Your task to perform on an android device: toggle data saver in the chrome app Image 0: 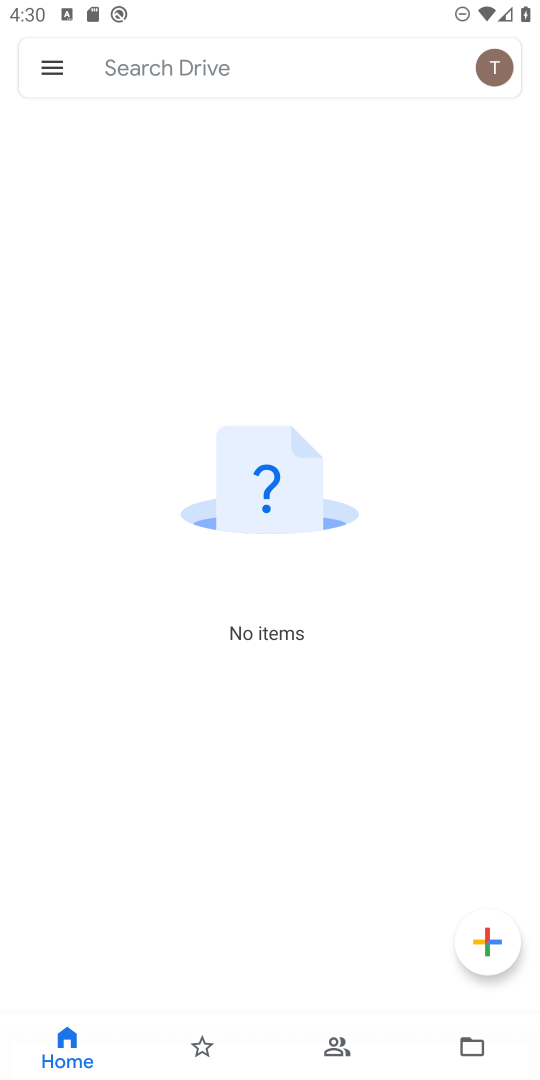
Step 0: press home button
Your task to perform on an android device: toggle data saver in the chrome app Image 1: 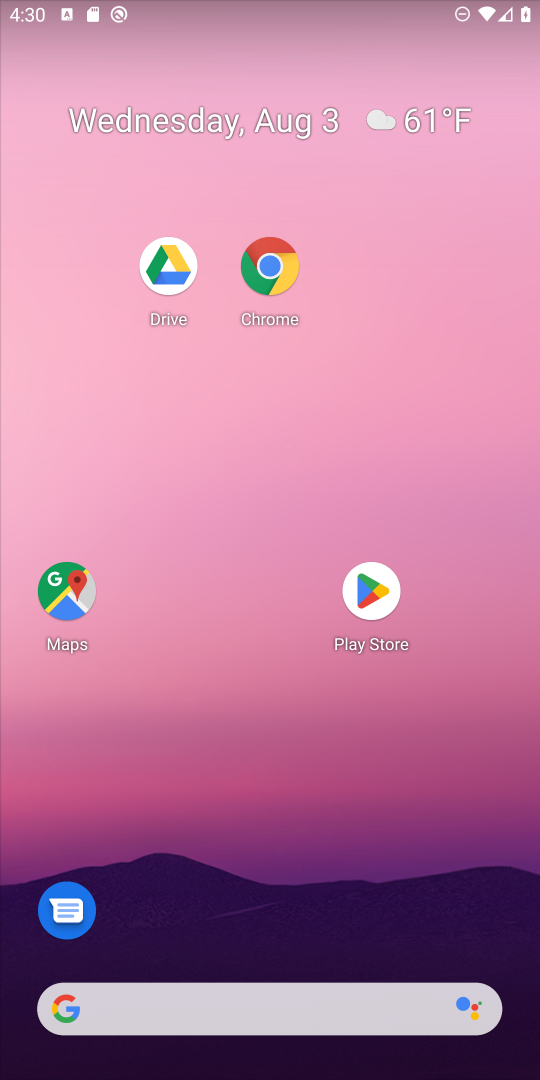
Step 1: drag from (330, 1002) to (382, 48)
Your task to perform on an android device: toggle data saver in the chrome app Image 2: 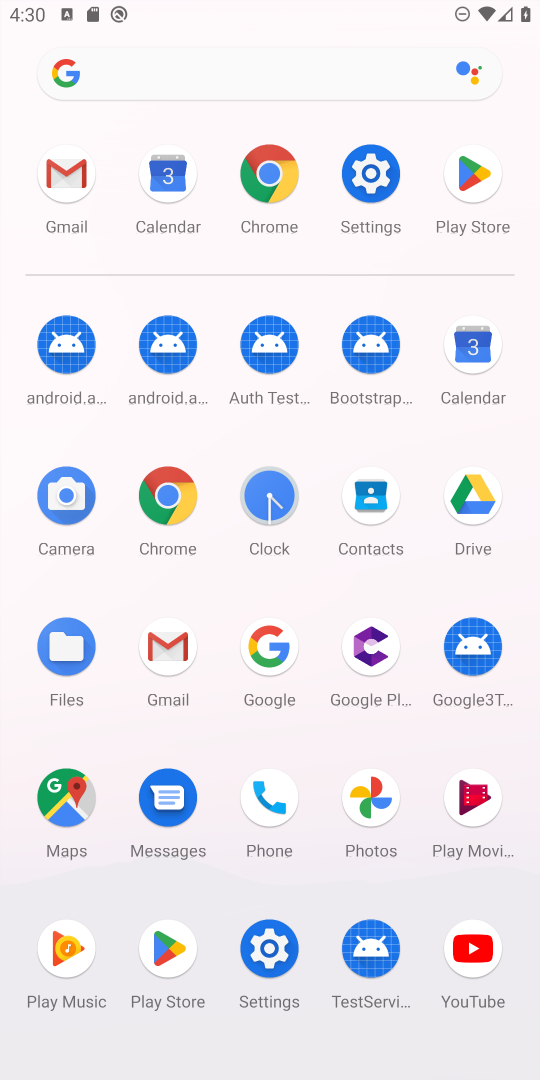
Step 2: click (193, 485)
Your task to perform on an android device: toggle data saver in the chrome app Image 3: 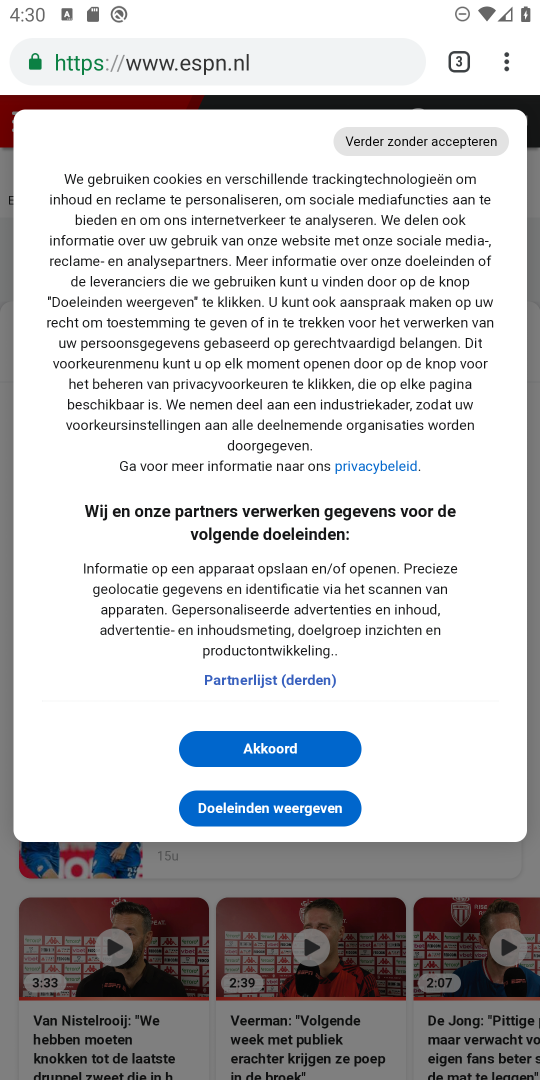
Step 3: drag from (499, 52) to (272, 748)
Your task to perform on an android device: toggle data saver in the chrome app Image 4: 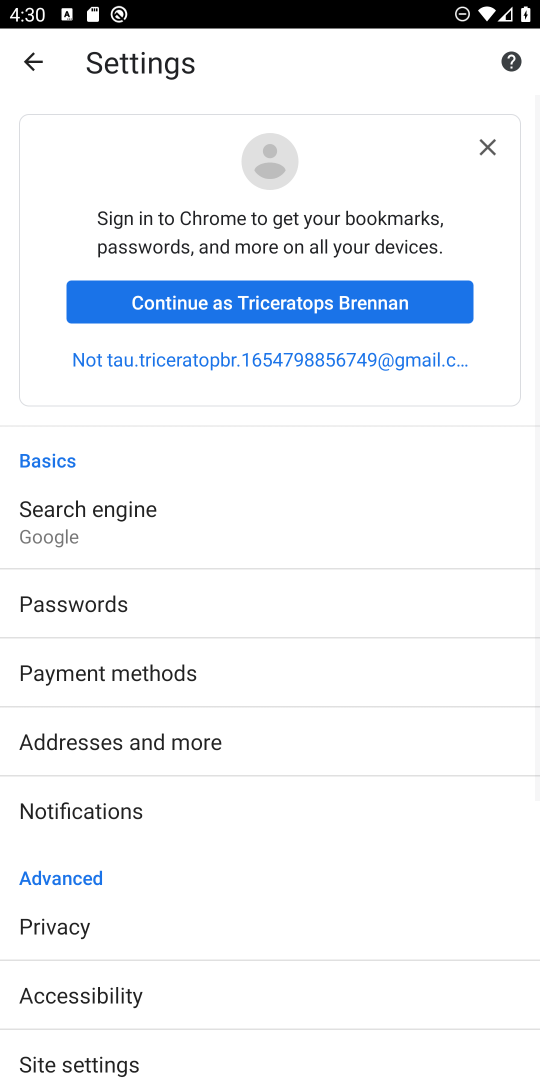
Step 4: drag from (223, 942) to (310, 374)
Your task to perform on an android device: toggle data saver in the chrome app Image 5: 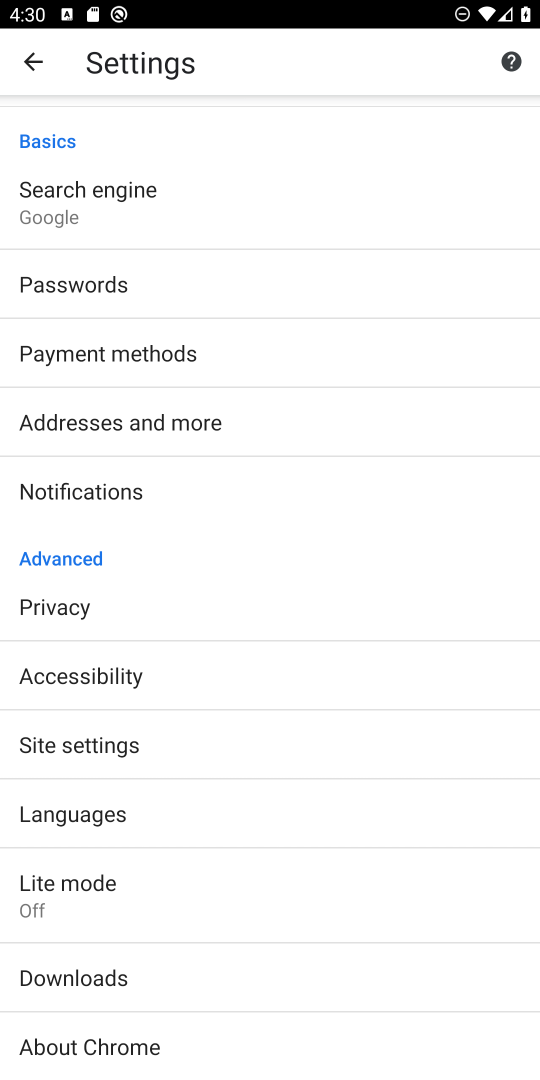
Step 5: click (95, 877)
Your task to perform on an android device: toggle data saver in the chrome app Image 6: 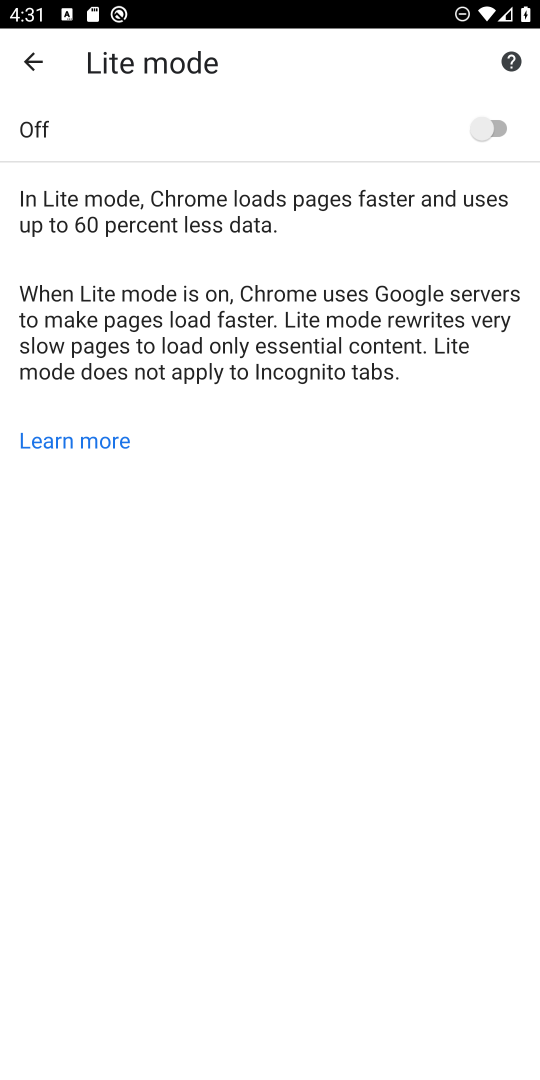
Step 6: click (484, 127)
Your task to perform on an android device: toggle data saver in the chrome app Image 7: 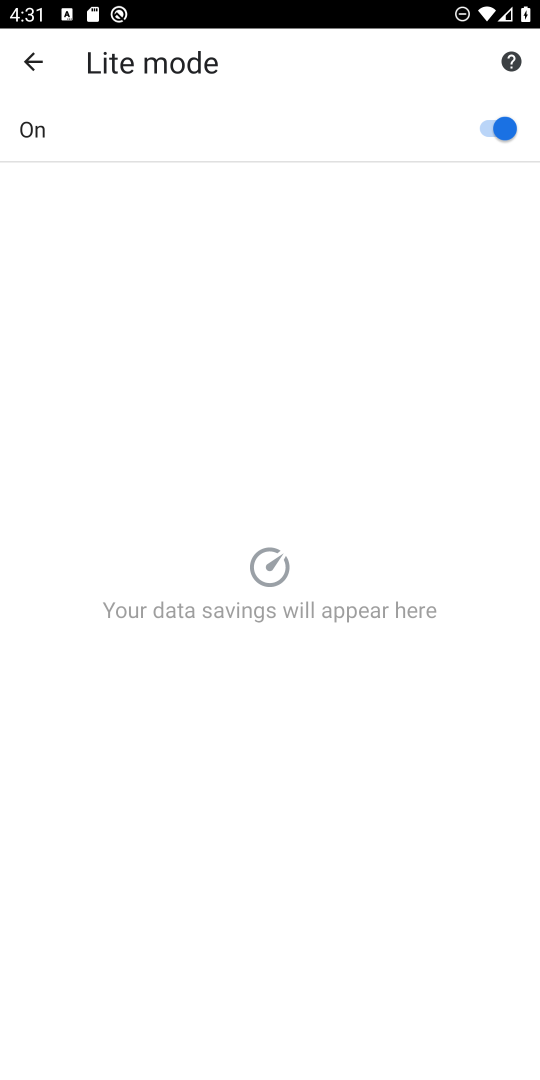
Step 7: task complete